Your task to perform on an android device: Open the map Image 0: 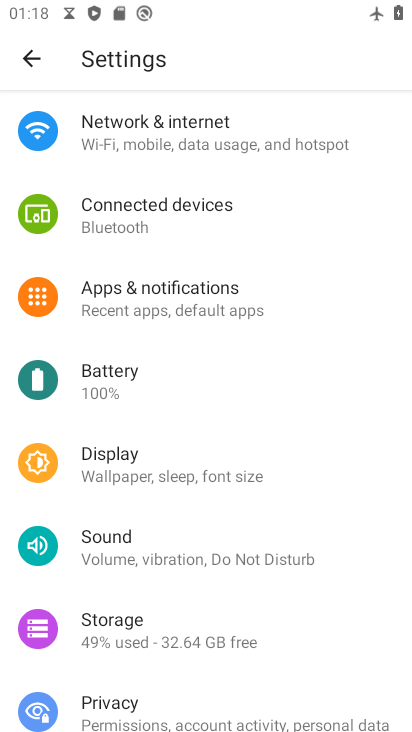
Step 0: press home button
Your task to perform on an android device: Open the map Image 1: 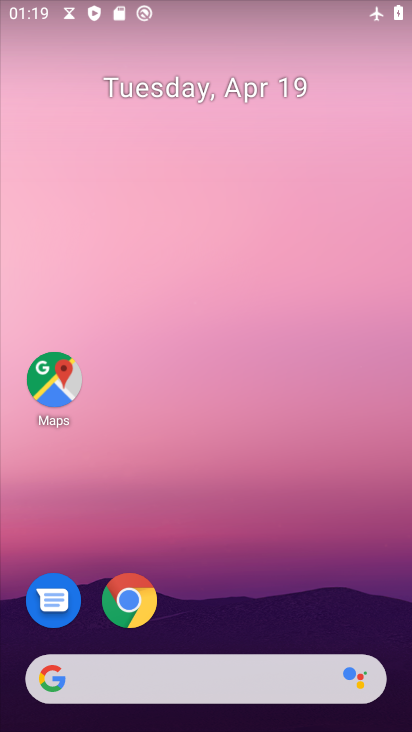
Step 1: drag from (223, 638) to (213, 16)
Your task to perform on an android device: Open the map Image 2: 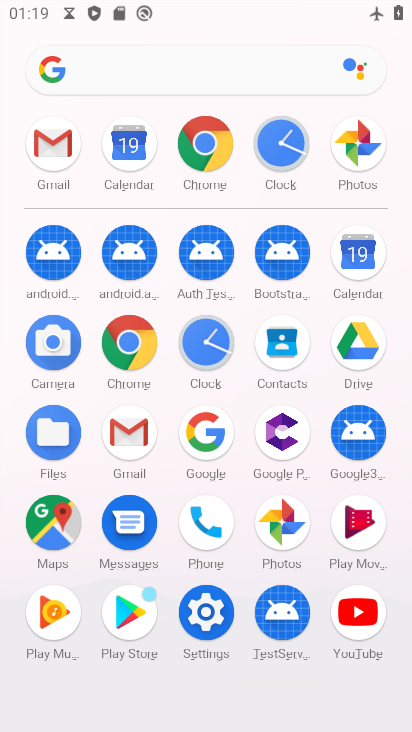
Step 2: click (62, 531)
Your task to perform on an android device: Open the map Image 3: 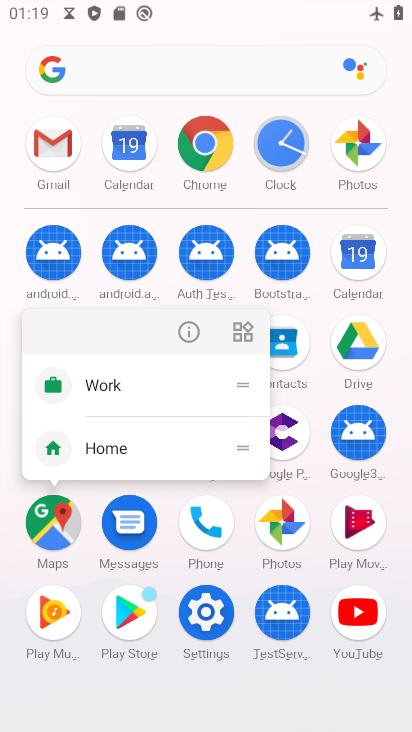
Step 3: click (72, 529)
Your task to perform on an android device: Open the map Image 4: 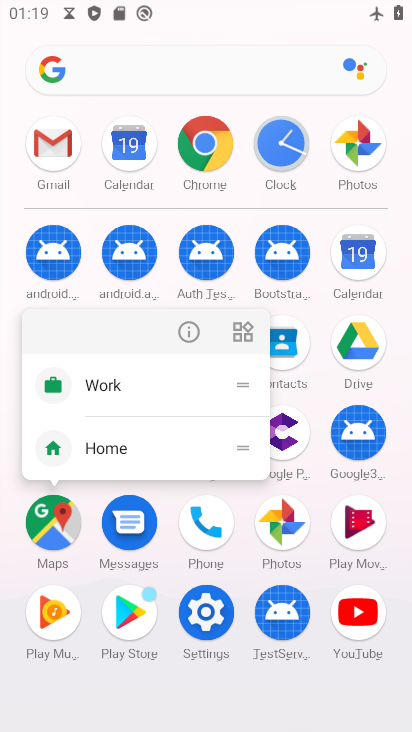
Step 4: click (54, 516)
Your task to perform on an android device: Open the map Image 5: 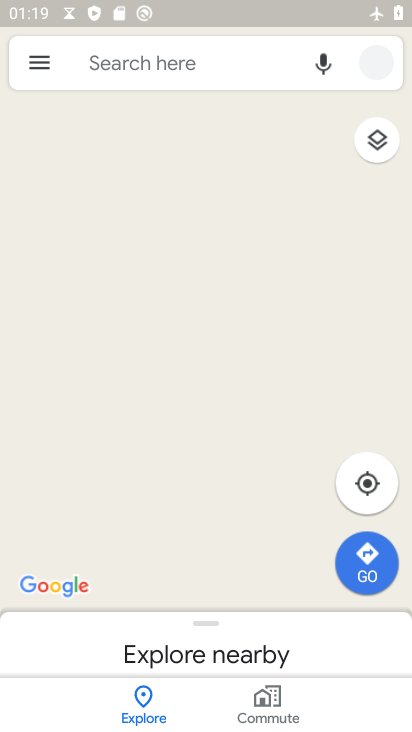
Step 5: task complete